Your task to perform on an android device: Go to Google maps Image 0: 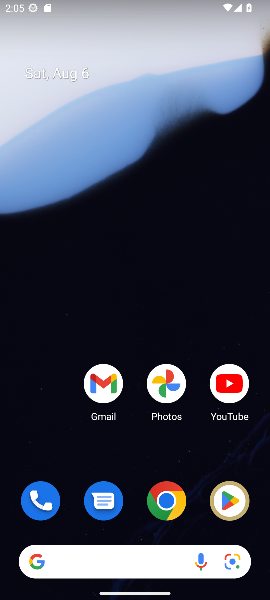
Step 0: press home button
Your task to perform on an android device: Go to Google maps Image 1: 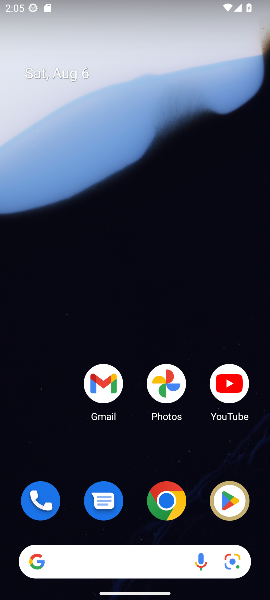
Step 1: drag from (143, 517) to (169, 143)
Your task to perform on an android device: Go to Google maps Image 2: 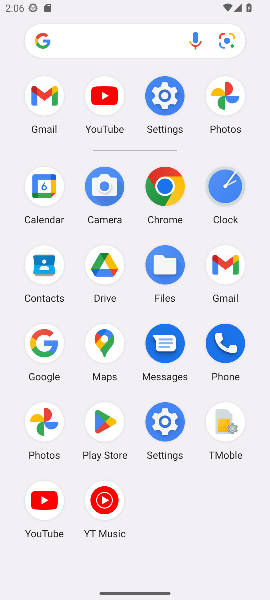
Step 2: click (102, 345)
Your task to perform on an android device: Go to Google maps Image 3: 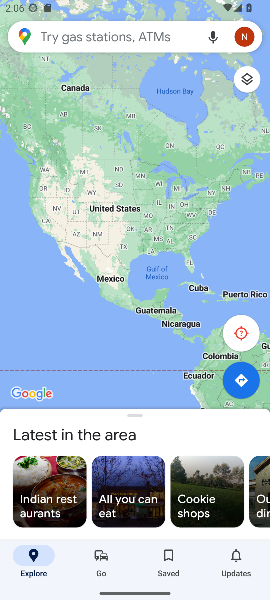
Step 3: task complete